Your task to perform on an android device: Do I have any events this weekend? Image 0: 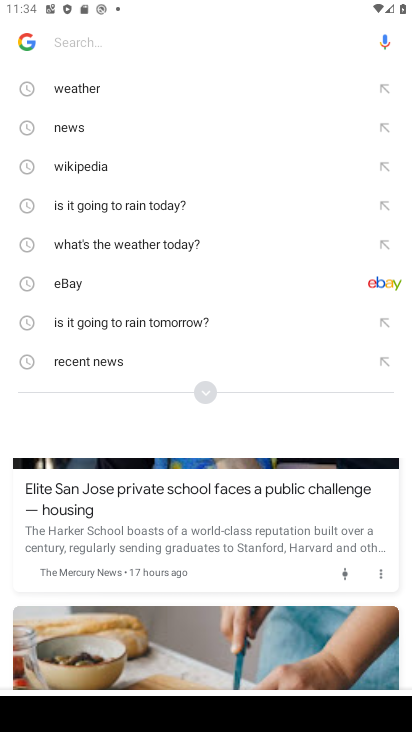
Step 0: press home button
Your task to perform on an android device: Do I have any events this weekend? Image 1: 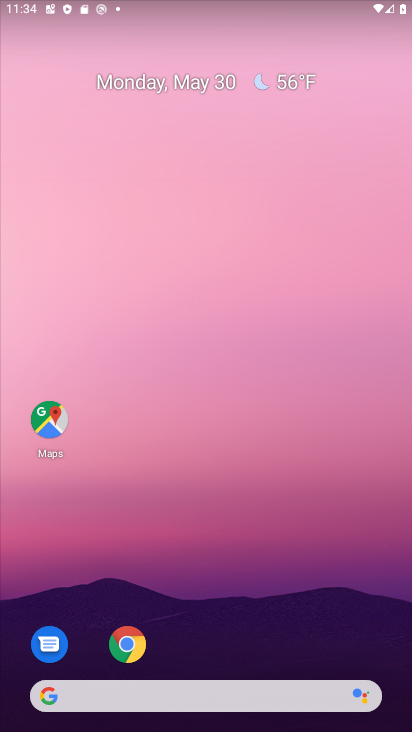
Step 1: drag from (196, 655) to (201, 281)
Your task to perform on an android device: Do I have any events this weekend? Image 2: 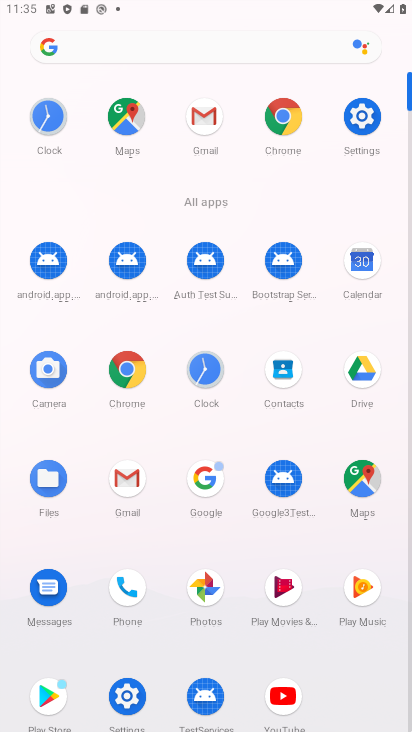
Step 2: click (358, 263)
Your task to perform on an android device: Do I have any events this weekend? Image 3: 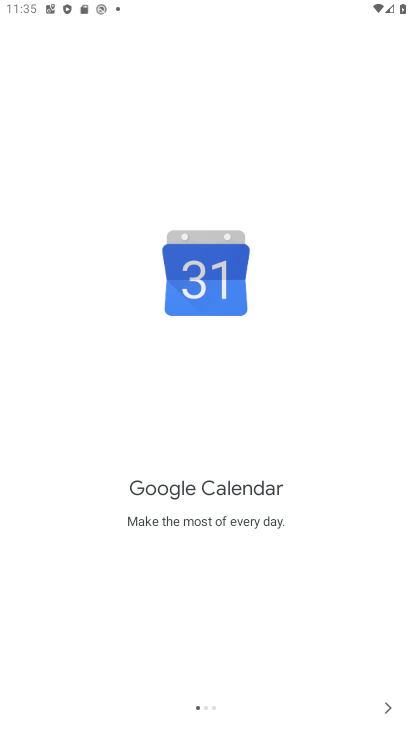
Step 3: click (385, 699)
Your task to perform on an android device: Do I have any events this weekend? Image 4: 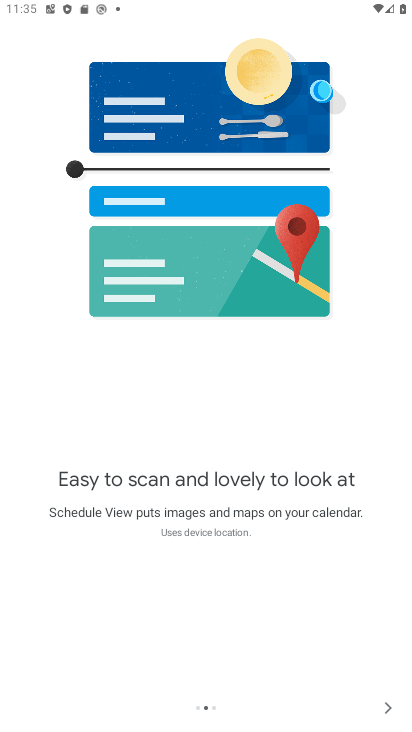
Step 4: click (380, 706)
Your task to perform on an android device: Do I have any events this weekend? Image 5: 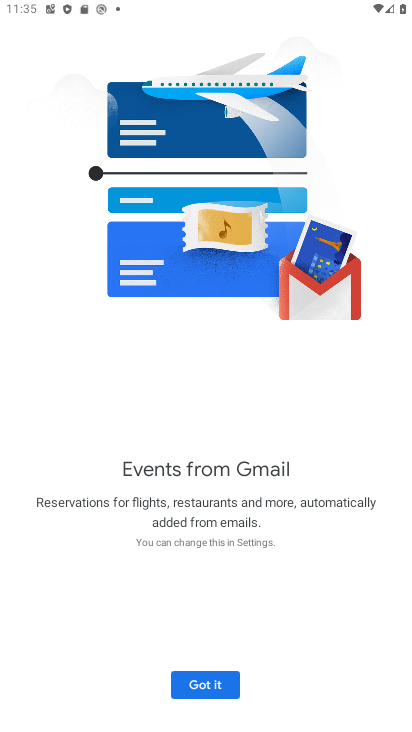
Step 5: click (380, 706)
Your task to perform on an android device: Do I have any events this weekend? Image 6: 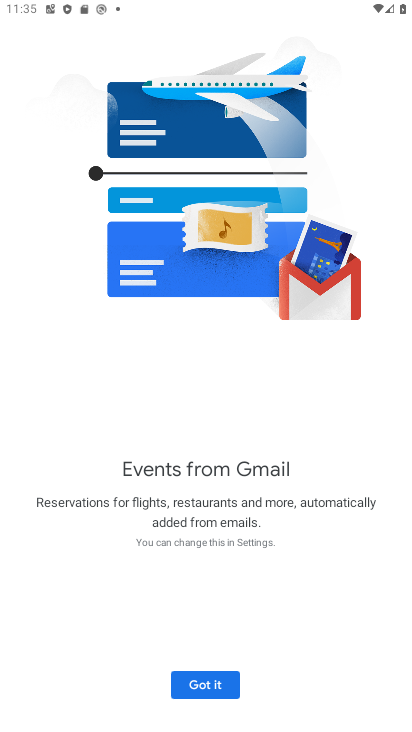
Step 6: click (203, 689)
Your task to perform on an android device: Do I have any events this weekend? Image 7: 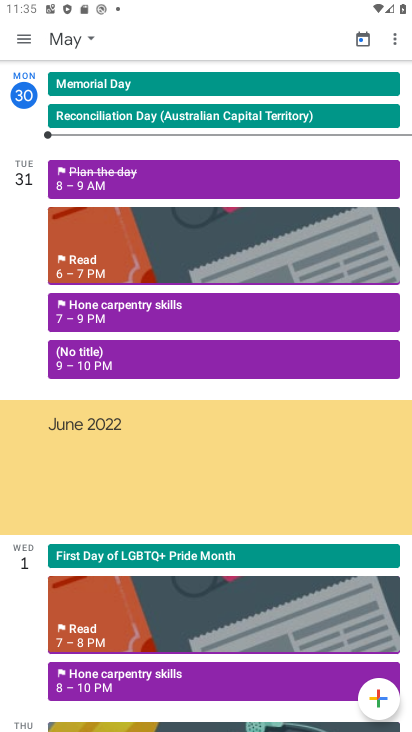
Step 7: click (32, 39)
Your task to perform on an android device: Do I have any events this weekend? Image 8: 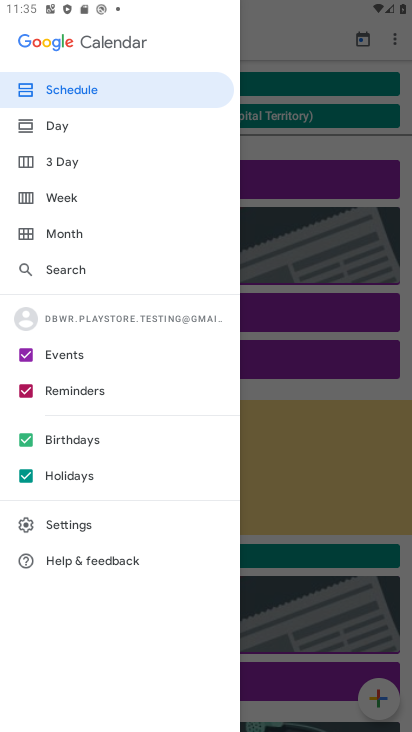
Step 8: click (62, 388)
Your task to perform on an android device: Do I have any events this weekend? Image 9: 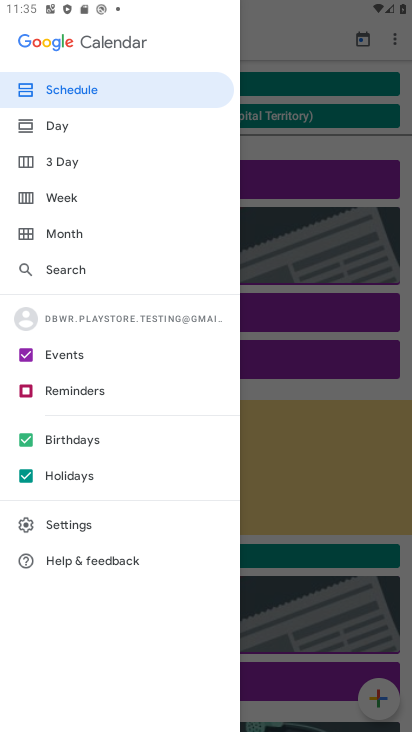
Step 9: click (55, 429)
Your task to perform on an android device: Do I have any events this weekend? Image 10: 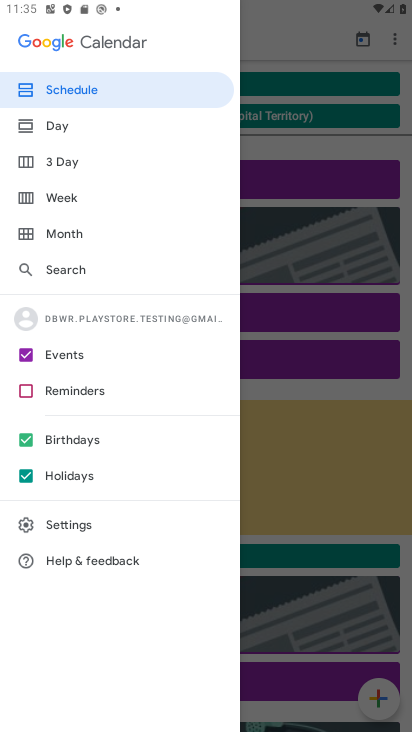
Step 10: click (57, 467)
Your task to perform on an android device: Do I have any events this weekend? Image 11: 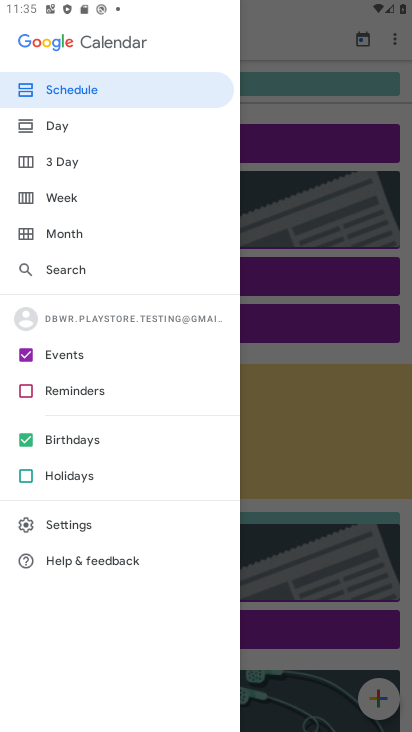
Step 11: click (54, 439)
Your task to perform on an android device: Do I have any events this weekend? Image 12: 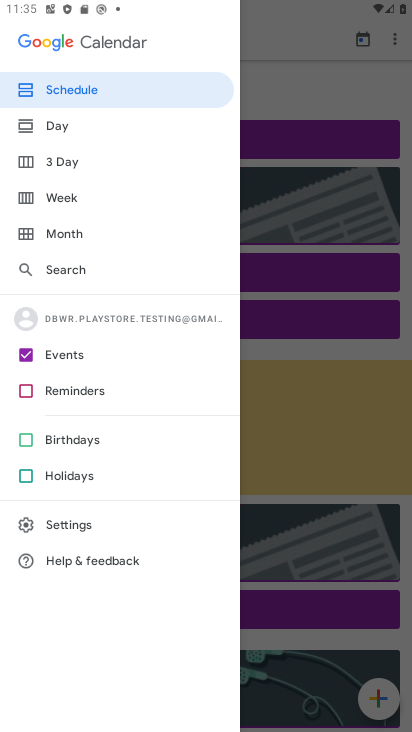
Step 12: click (55, 197)
Your task to perform on an android device: Do I have any events this weekend? Image 13: 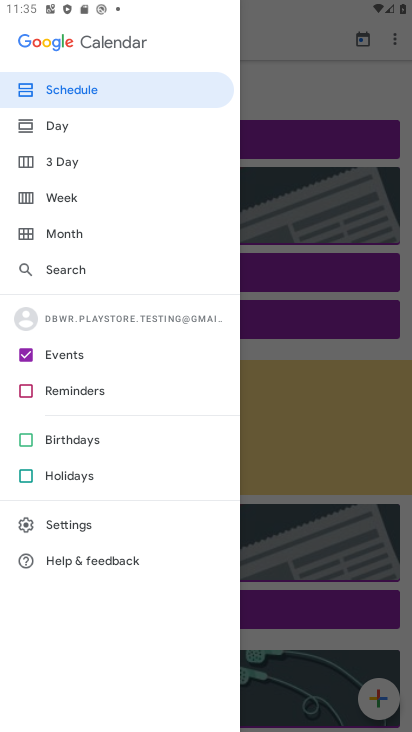
Step 13: click (56, 200)
Your task to perform on an android device: Do I have any events this weekend? Image 14: 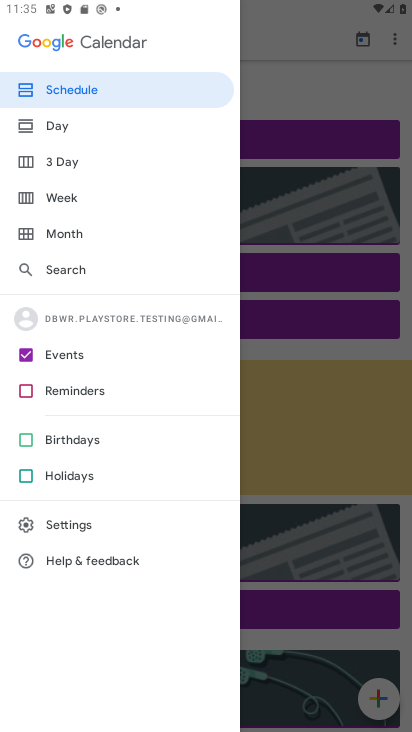
Step 14: click (67, 201)
Your task to perform on an android device: Do I have any events this weekend? Image 15: 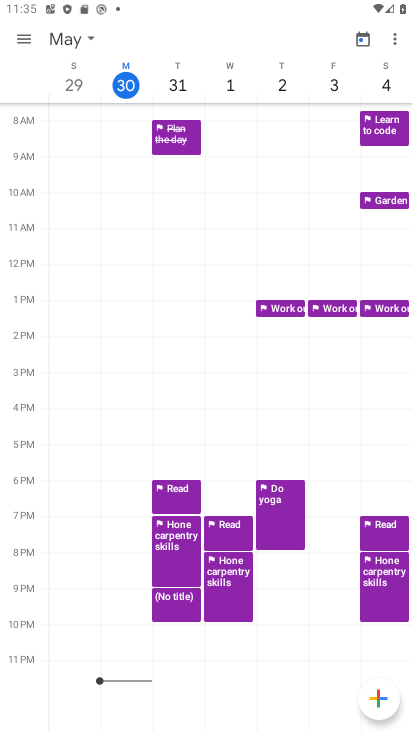
Step 15: task complete